Your task to perform on an android device: open device folders in google photos Image 0: 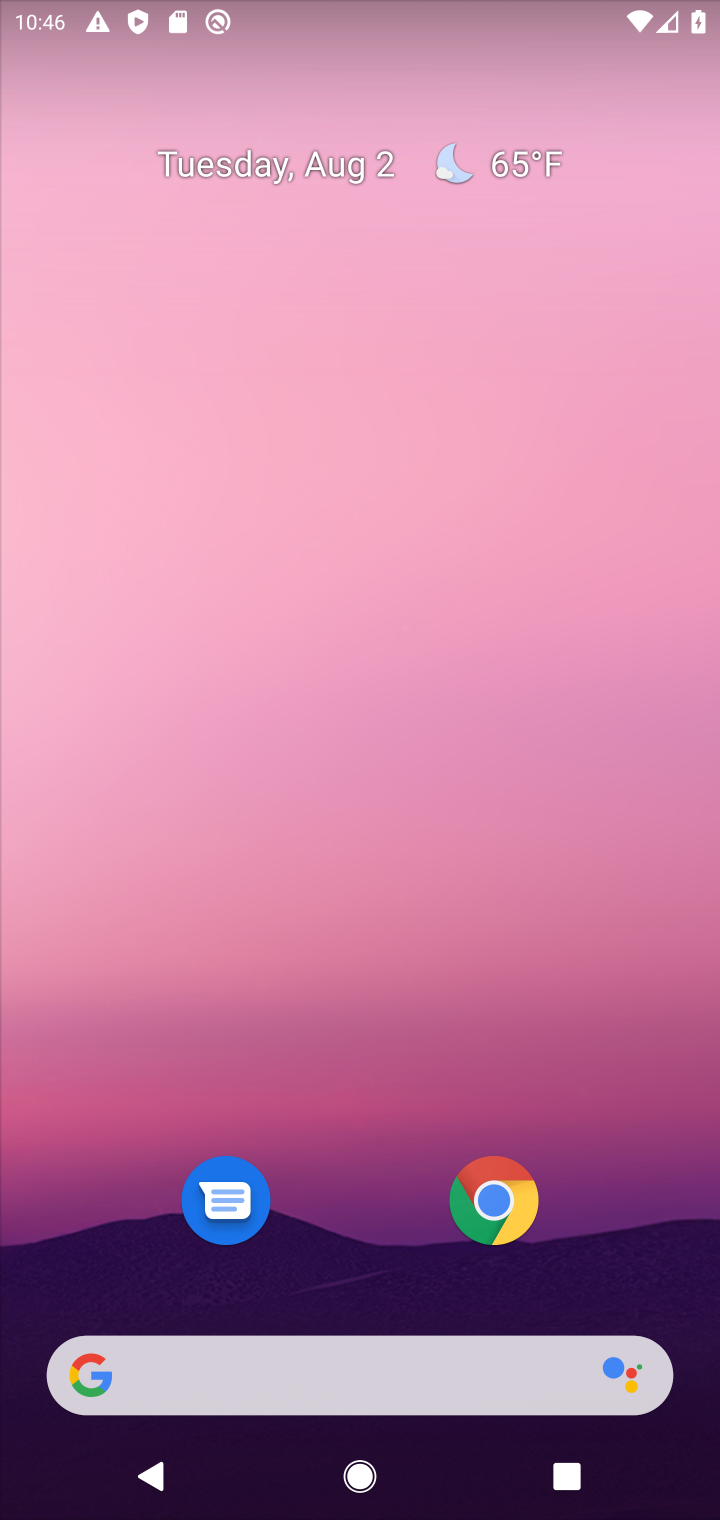
Step 0: drag from (659, 1287) to (595, 311)
Your task to perform on an android device: open device folders in google photos Image 1: 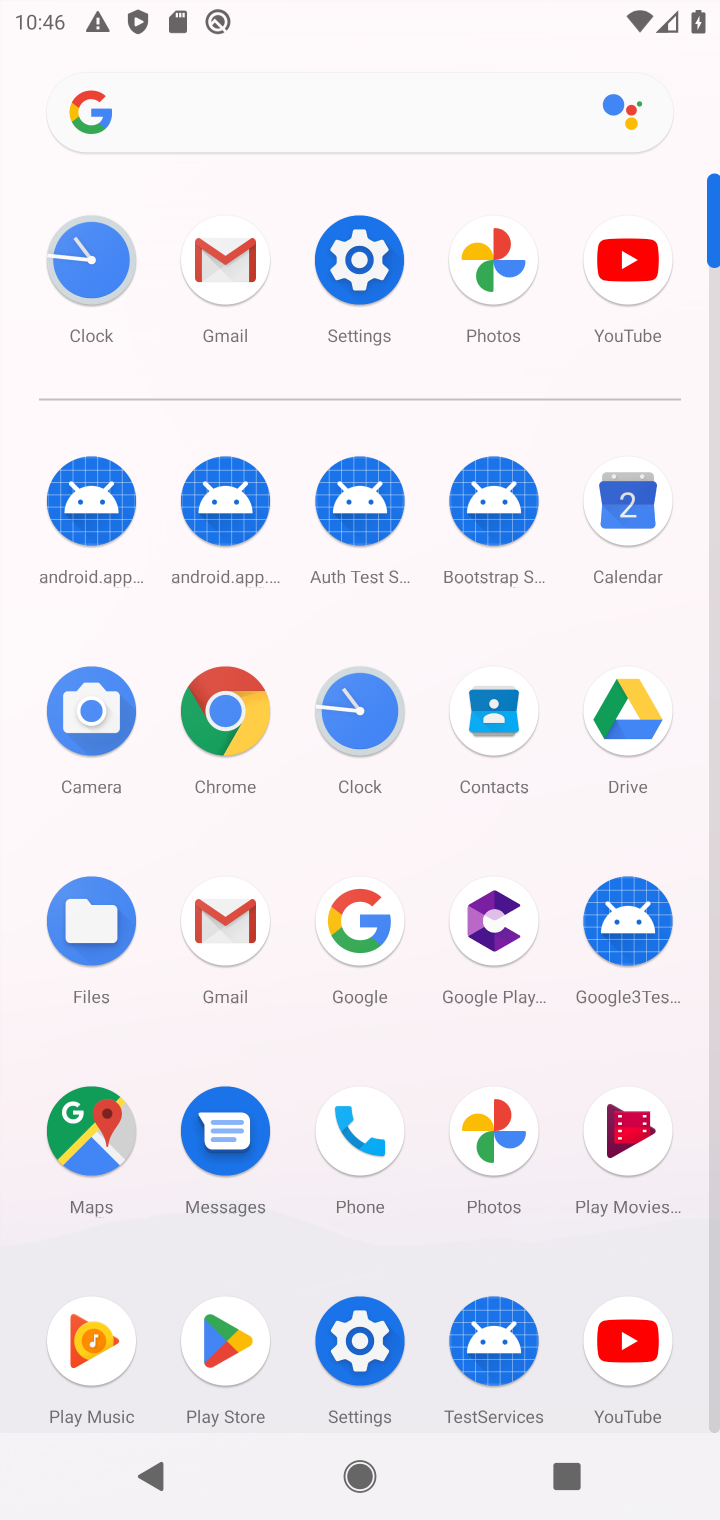
Step 1: click (496, 1125)
Your task to perform on an android device: open device folders in google photos Image 2: 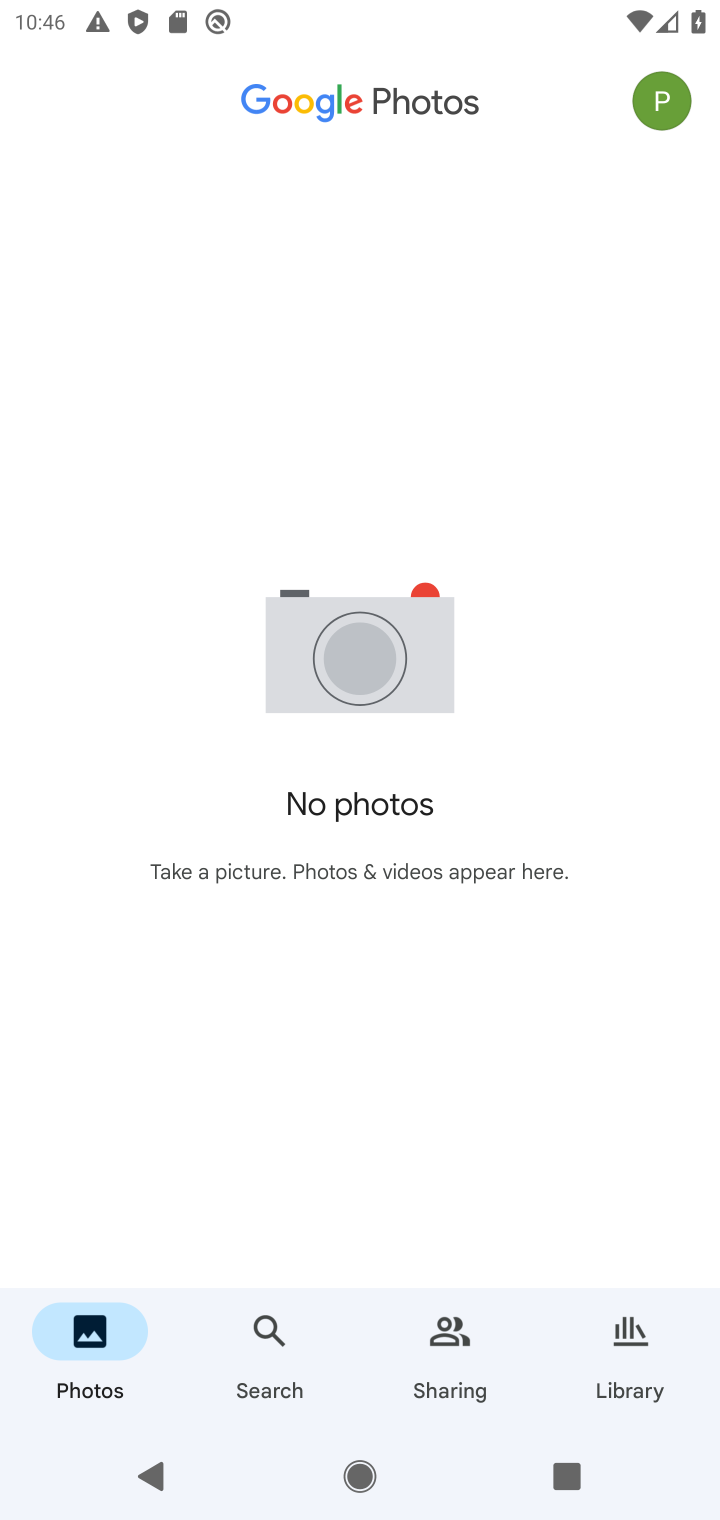
Step 2: click (638, 1346)
Your task to perform on an android device: open device folders in google photos Image 3: 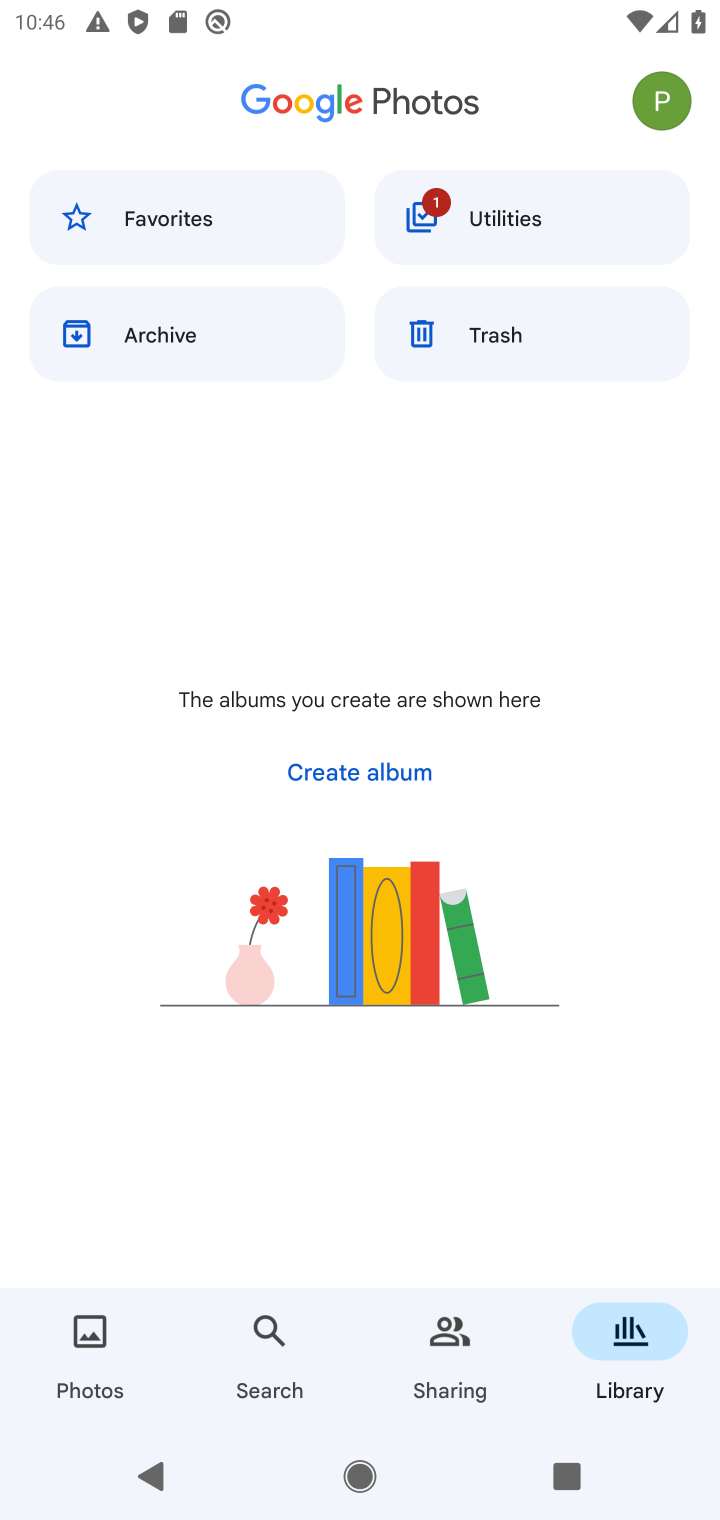
Step 3: task complete